Your task to perform on an android device: Open CNN.com Image 0: 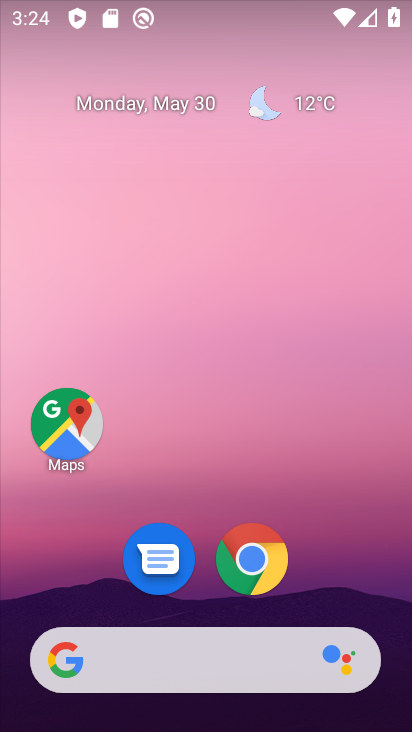
Step 0: click (250, 552)
Your task to perform on an android device: Open CNN.com Image 1: 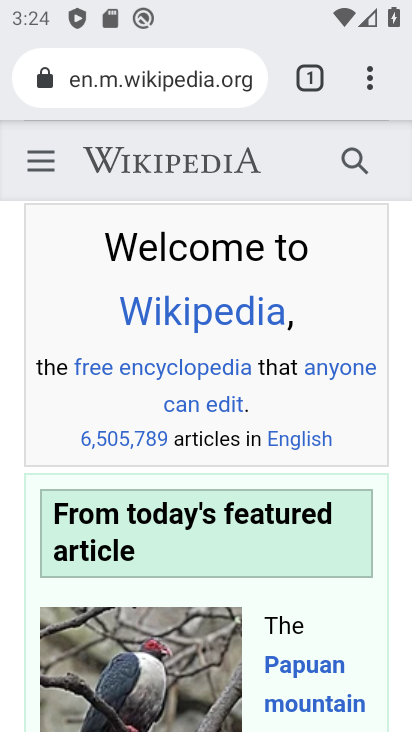
Step 1: click (370, 87)
Your task to perform on an android device: Open CNN.com Image 2: 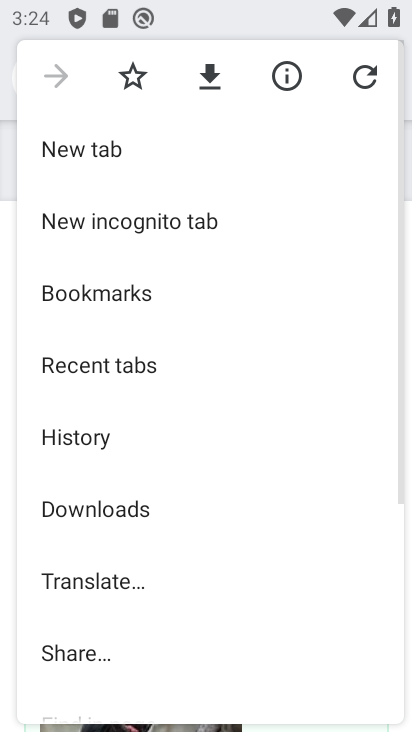
Step 2: click (81, 144)
Your task to perform on an android device: Open CNN.com Image 3: 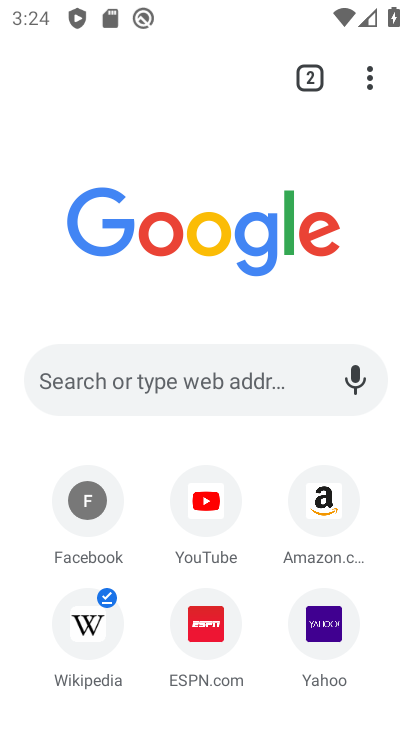
Step 3: click (181, 378)
Your task to perform on an android device: Open CNN.com Image 4: 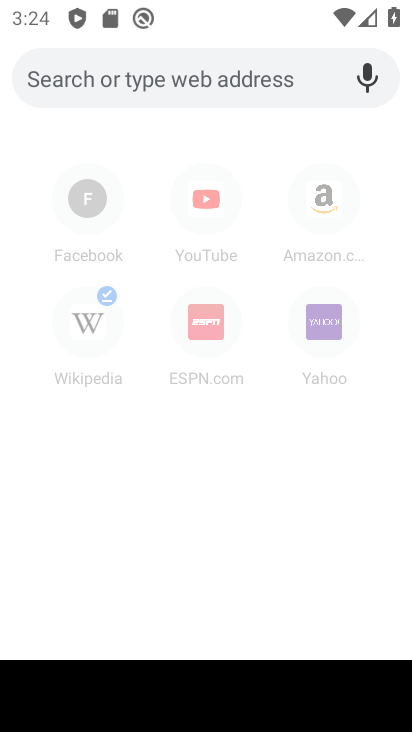
Step 4: type "CNN.com"
Your task to perform on an android device: Open CNN.com Image 5: 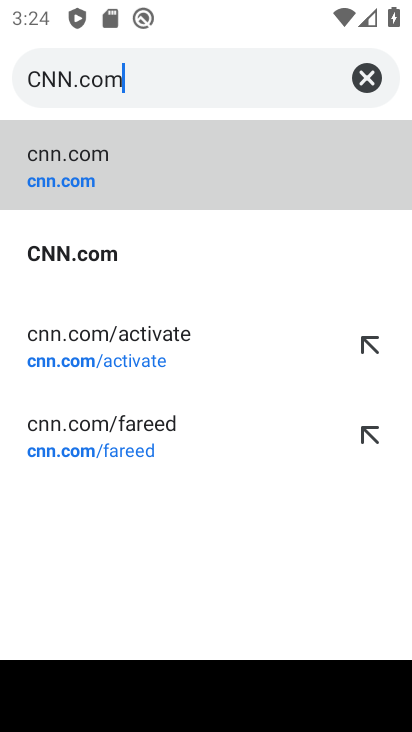
Step 5: click (55, 253)
Your task to perform on an android device: Open CNN.com Image 6: 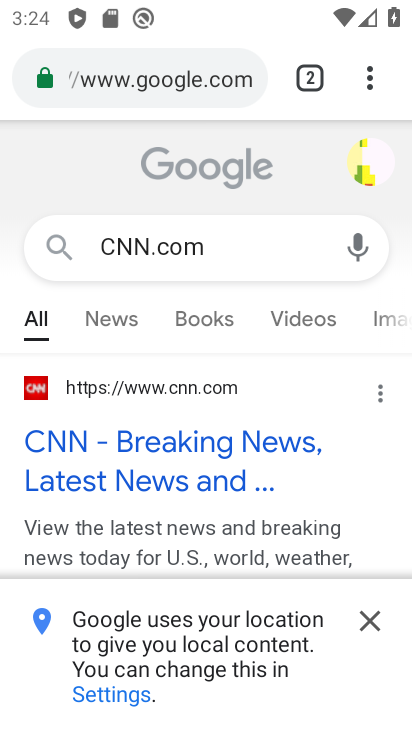
Step 6: click (129, 452)
Your task to perform on an android device: Open CNN.com Image 7: 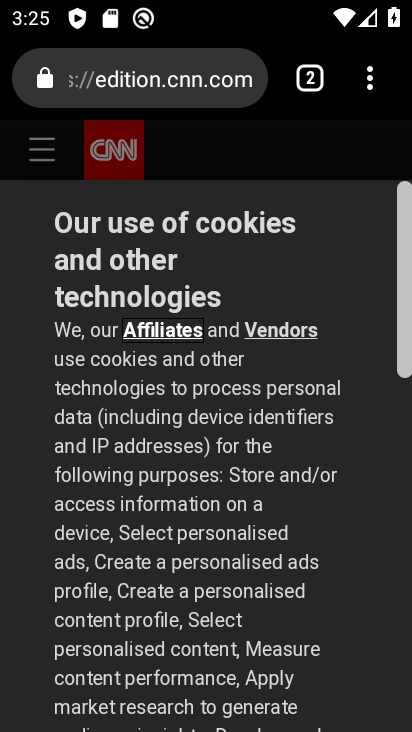
Step 7: task complete